Your task to perform on an android device: Open Google Maps Image 0: 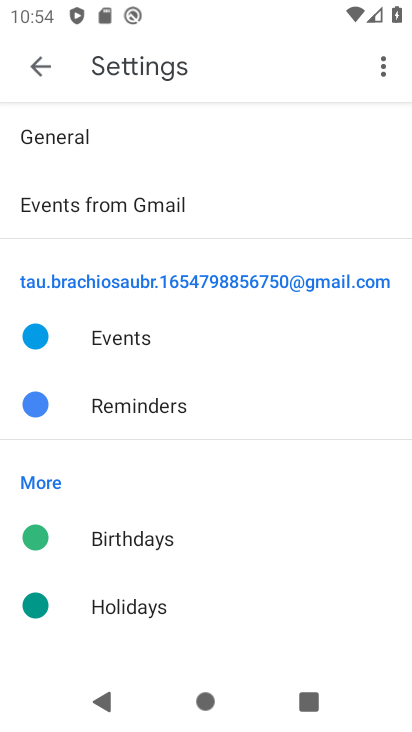
Step 0: press home button
Your task to perform on an android device: Open Google Maps Image 1: 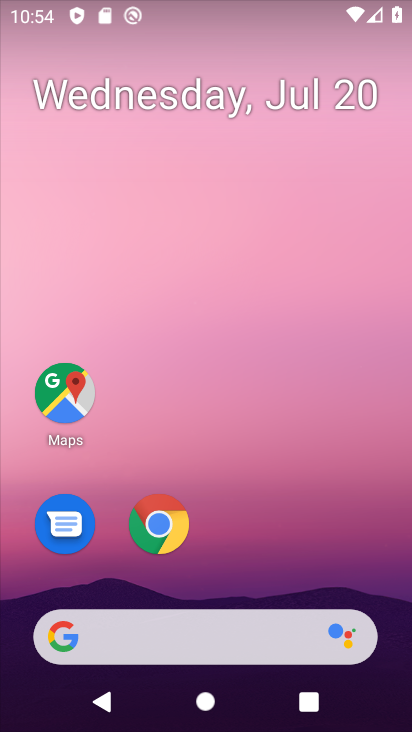
Step 1: click (61, 390)
Your task to perform on an android device: Open Google Maps Image 2: 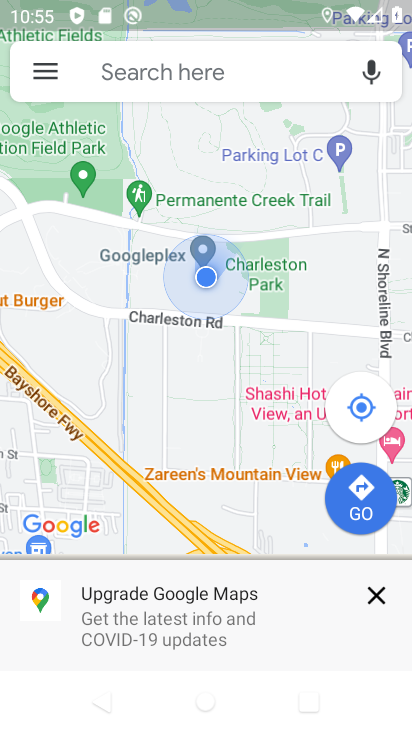
Step 2: task complete